Your task to perform on an android device: Clear the cart on newegg.com. Search for macbook pro 15 inch on newegg.com, select the first entry, add it to the cart, then select checkout. Image 0: 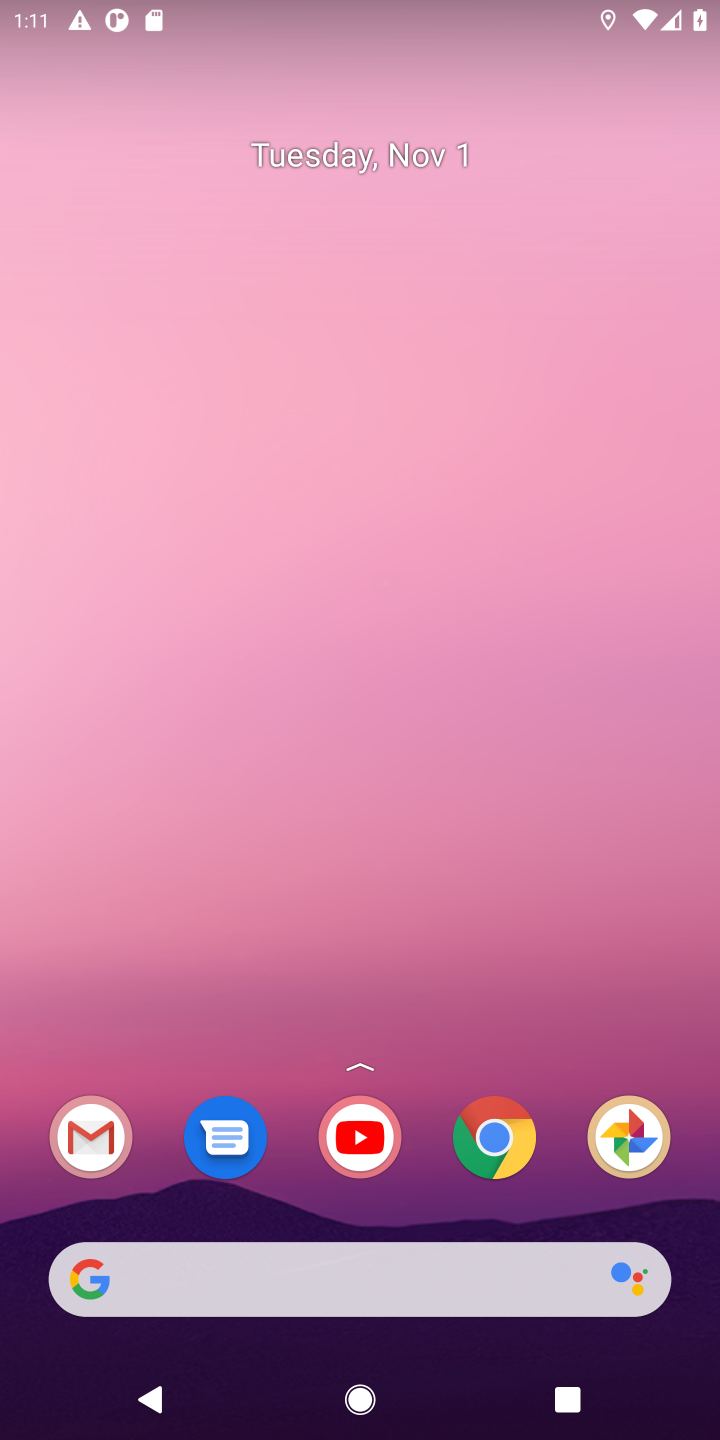
Step 0: drag from (213, 1139) to (414, 124)
Your task to perform on an android device: Clear the cart on newegg.com. Search for macbook pro 15 inch on newegg.com, select the first entry, add it to the cart, then select checkout. Image 1: 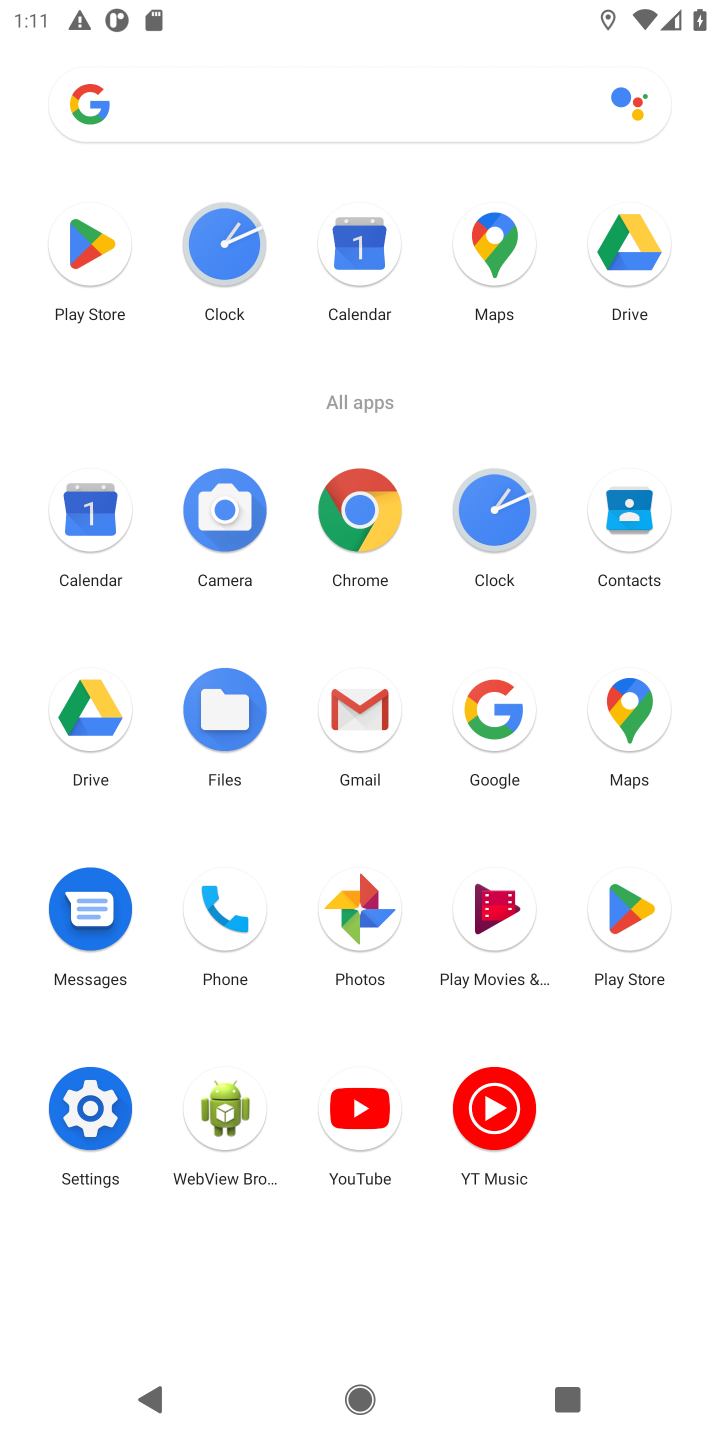
Step 1: click (344, 515)
Your task to perform on an android device: Clear the cart on newegg.com. Search for macbook pro 15 inch on newegg.com, select the first entry, add it to the cart, then select checkout. Image 2: 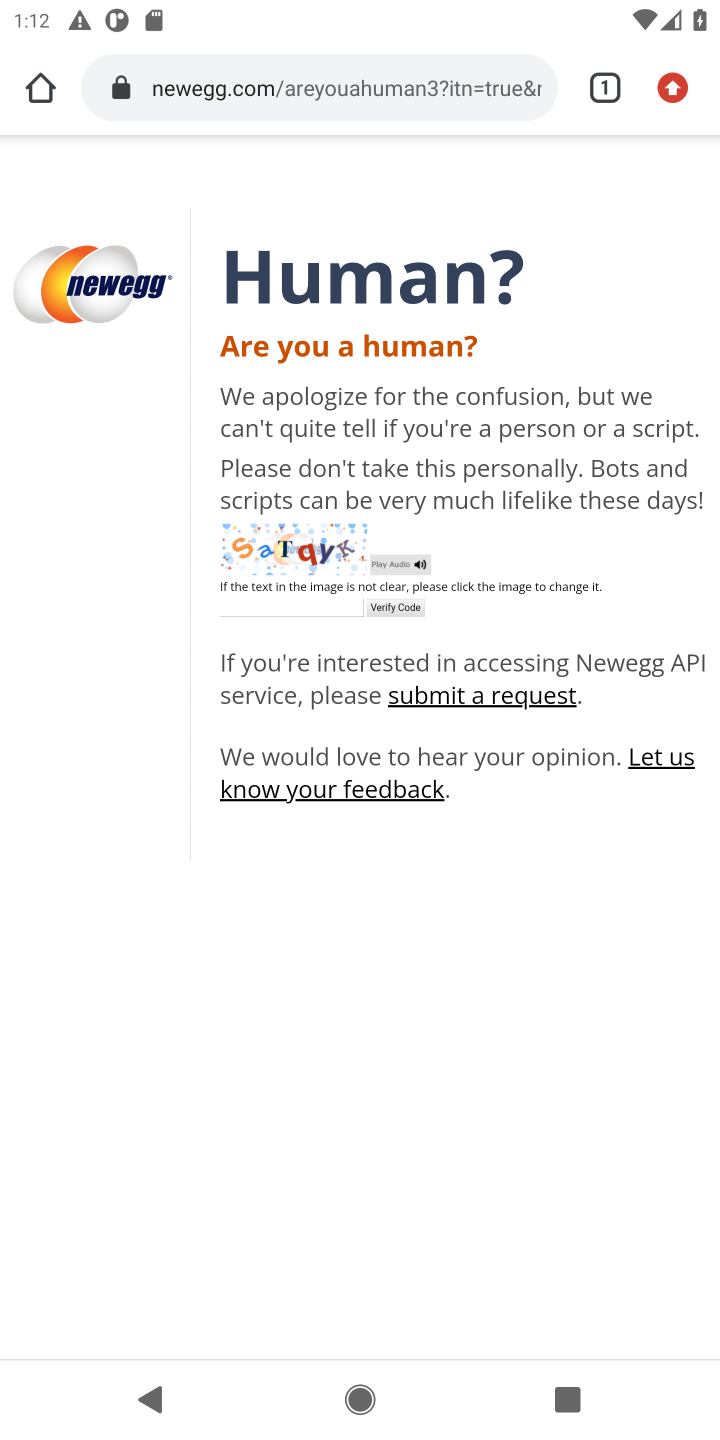
Step 2: click (113, 317)
Your task to perform on an android device: Clear the cart on newegg.com. Search for macbook pro 15 inch on newegg.com, select the first entry, add it to the cart, then select checkout. Image 3: 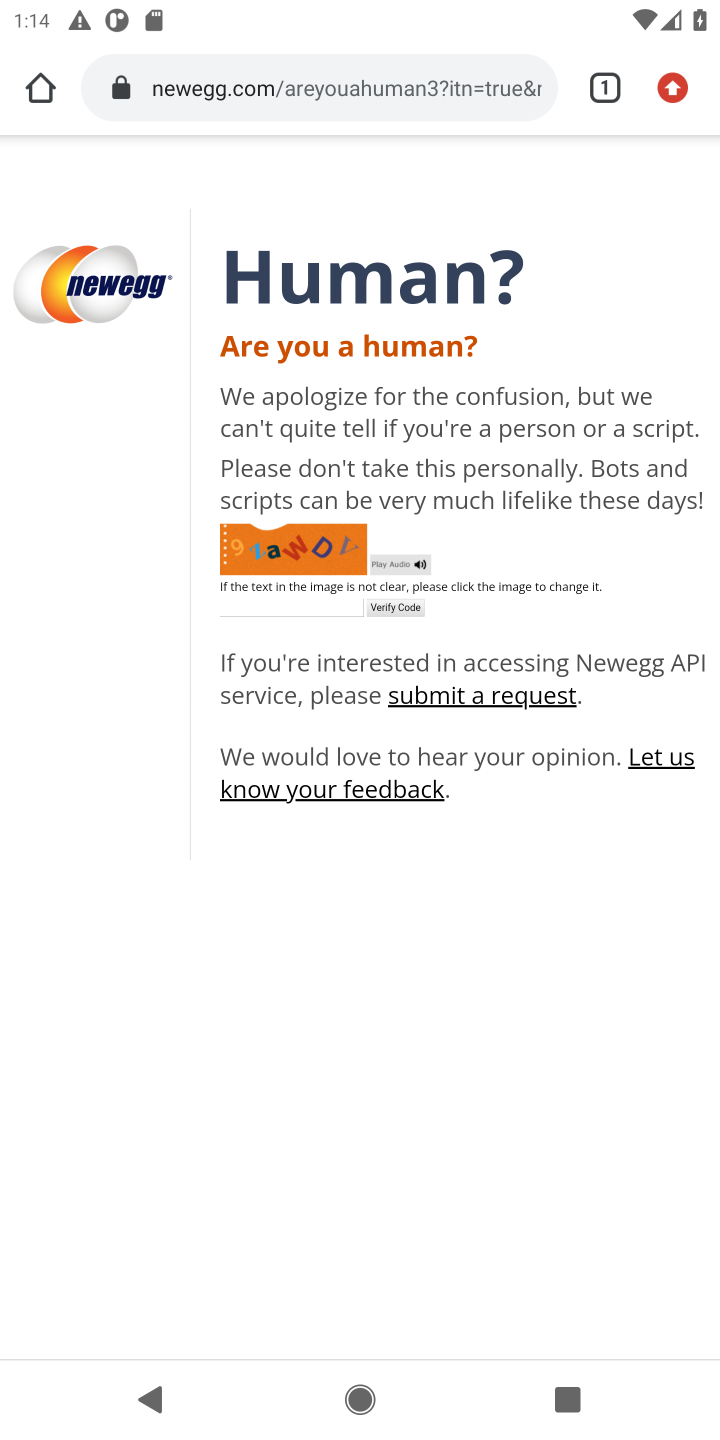
Step 3: task complete